Your task to perform on an android device: check storage Image 0: 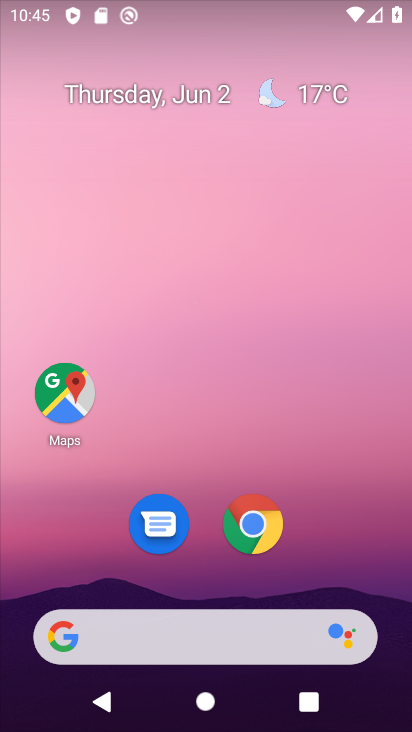
Step 0: drag from (235, 435) to (254, 3)
Your task to perform on an android device: check storage Image 1: 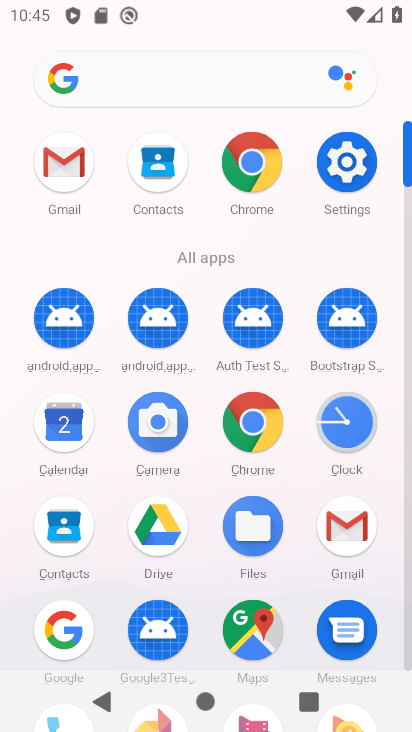
Step 1: click (351, 163)
Your task to perform on an android device: check storage Image 2: 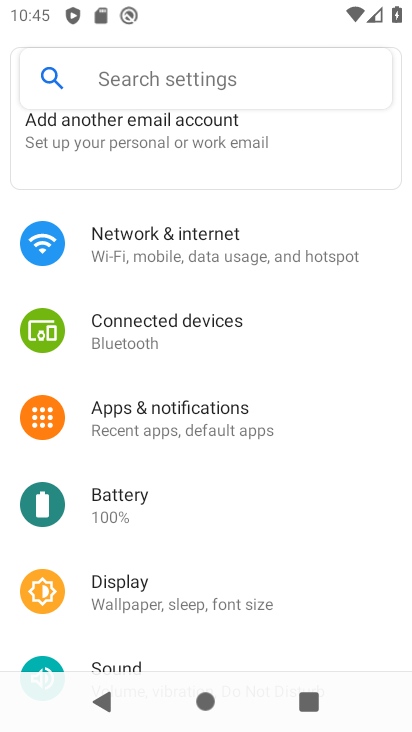
Step 2: drag from (228, 542) to (238, 227)
Your task to perform on an android device: check storage Image 3: 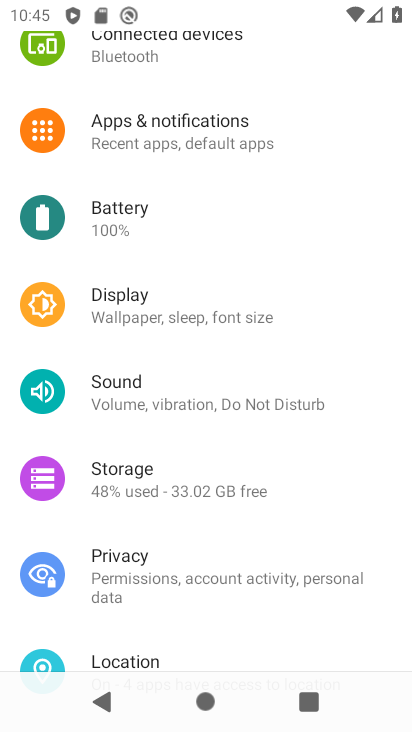
Step 3: click (201, 478)
Your task to perform on an android device: check storage Image 4: 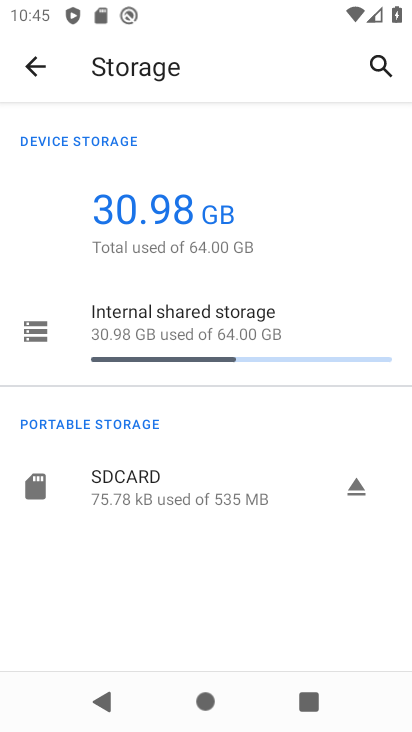
Step 4: task complete